Your task to perform on an android device: choose inbox layout in the gmail app Image 0: 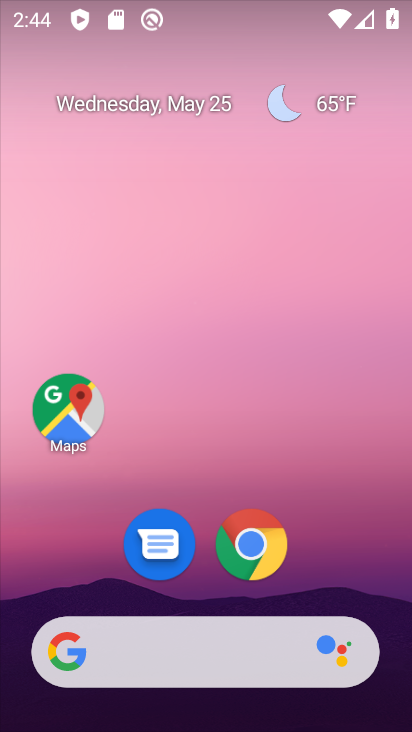
Step 0: drag from (395, 614) to (286, 27)
Your task to perform on an android device: choose inbox layout in the gmail app Image 1: 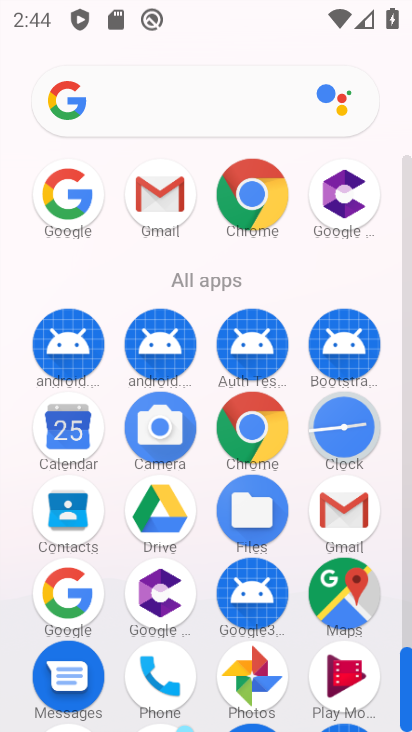
Step 1: click (172, 188)
Your task to perform on an android device: choose inbox layout in the gmail app Image 2: 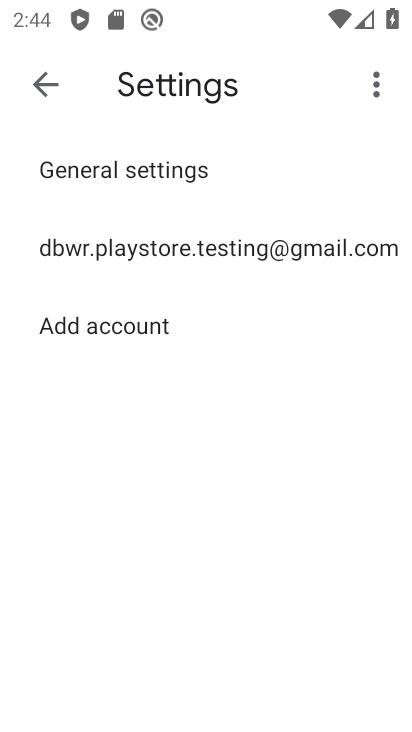
Step 2: click (185, 247)
Your task to perform on an android device: choose inbox layout in the gmail app Image 3: 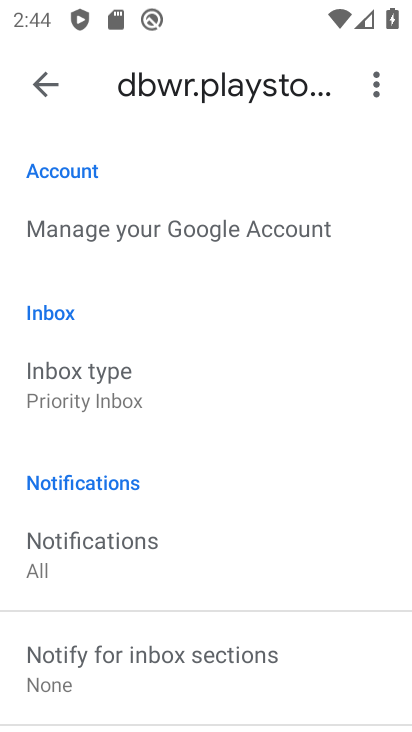
Step 3: click (132, 373)
Your task to perform on an android device: choose inbox layout in the gmail app Image 4: 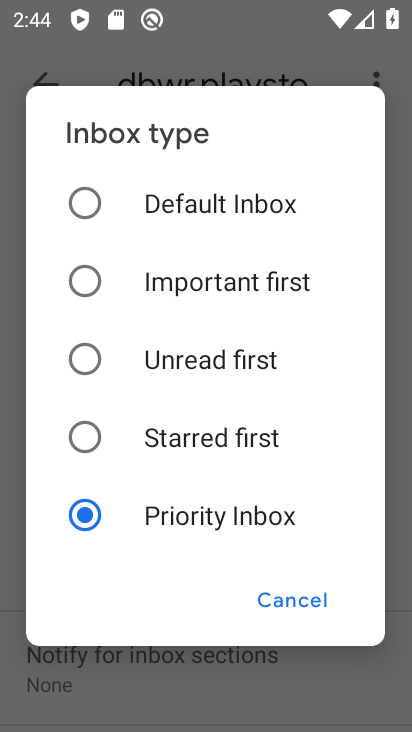
Step 4: click (197, 292)
Your task to perform on an android device: choose inbox layout in the gmail app Image 5: 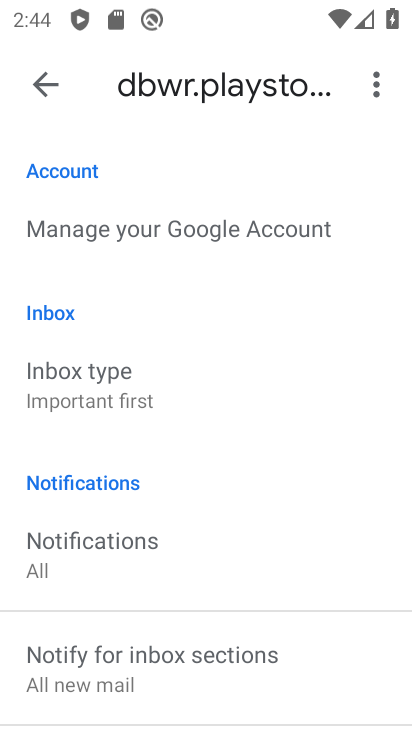
Step 5: task complete